Your task to perform on an android device: turn off notifications settings in the gmail app Image 0: 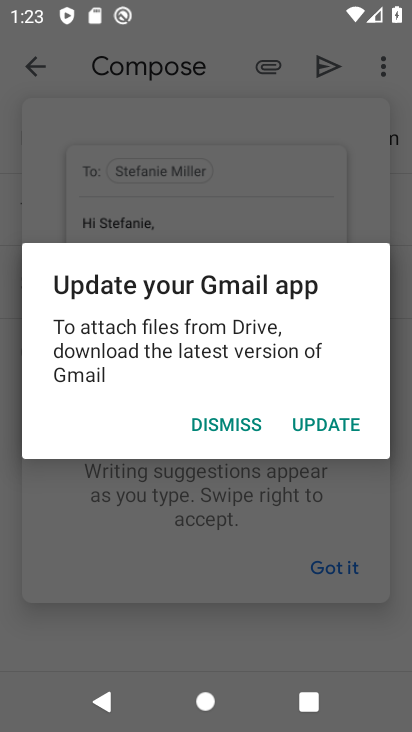
Step 0: press home button
Your task to perform on an android device: turn off notifications settings in the gmail app Image 1: 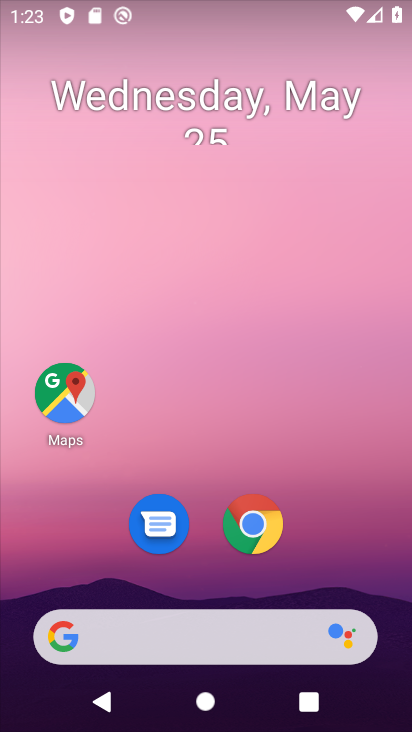
Step 1: drag from (318, 527) to (291, 88)
Your task to perform on an android device: turn off notifications settings in the gmail app Image 2: 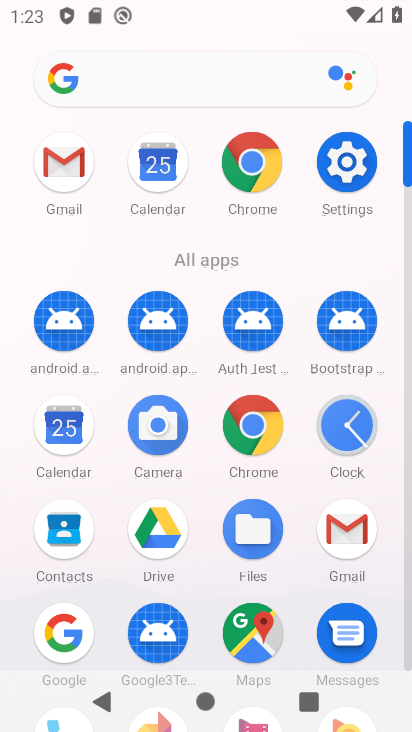
Step 2: click (334, 161)
Your task to perform on an android device: turn off notifications settings in the gmail app Image 3: 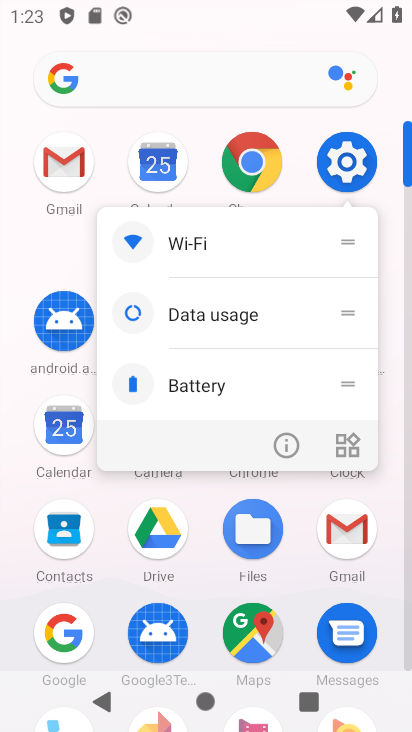
Step 3: click (349, 528)
Your task to perform on an android device: turn off notifications settings in the gmail app Image 4: 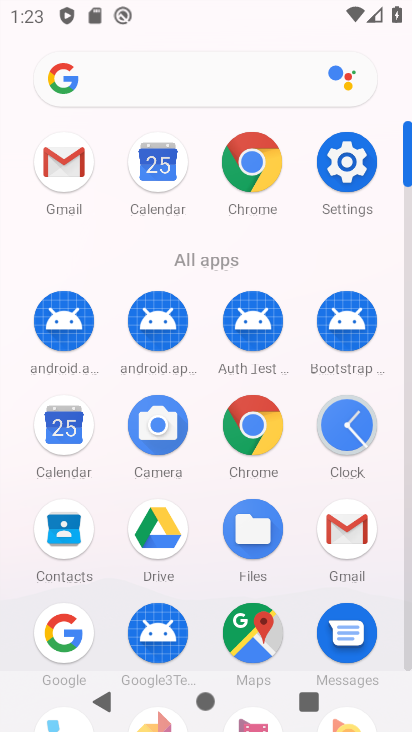
Step 4: click (349, 529)
Your task to perform on an android device: turn off notifications settings in the gmail app Image 5: 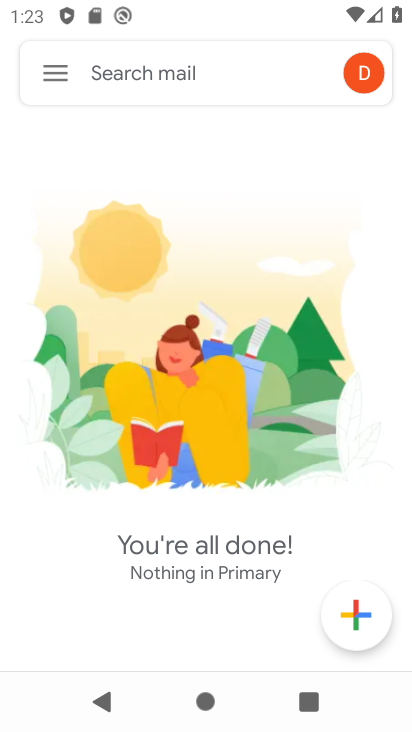
Step 5: click (53, 69)
Your task to perform on an android device: turn off notifications settings in the gmail app Image 6: 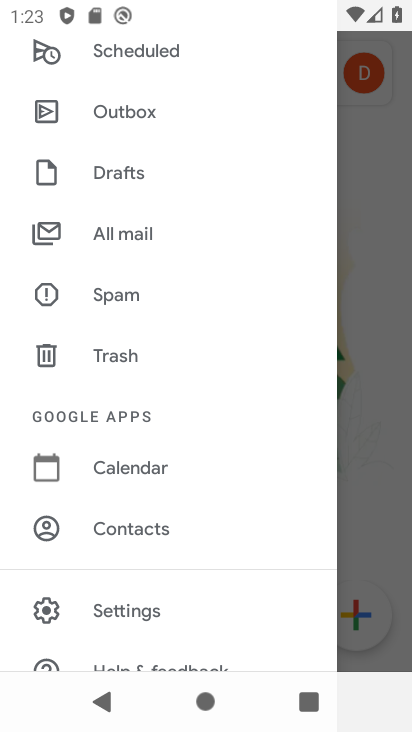
Step 6: click (149, 601)
Your task to perform on an android device: turn off notifications settings in the gmail app Image 7: 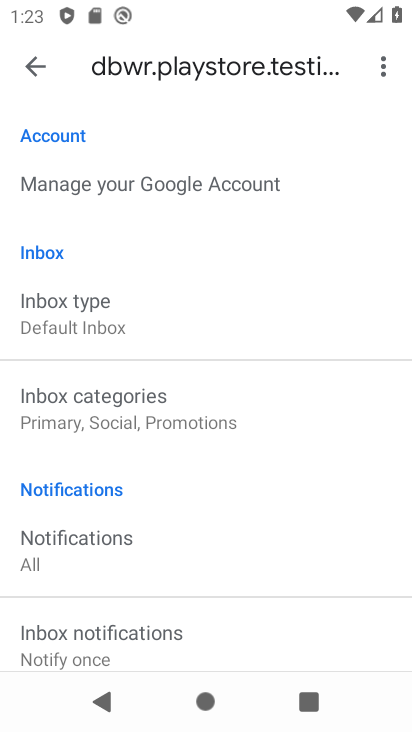
Step 7: drag from (200, 521) to (233, 121)
Your task to perform on an android device: turn off notifications settings in the gmail app Image 8: 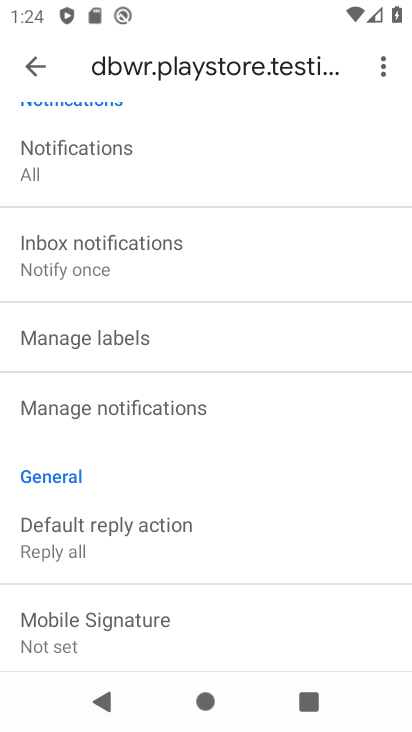
Step 8: click (241, 402)
Your task to perform on an android device: turn off notifications settings in the gmail app Image 9: 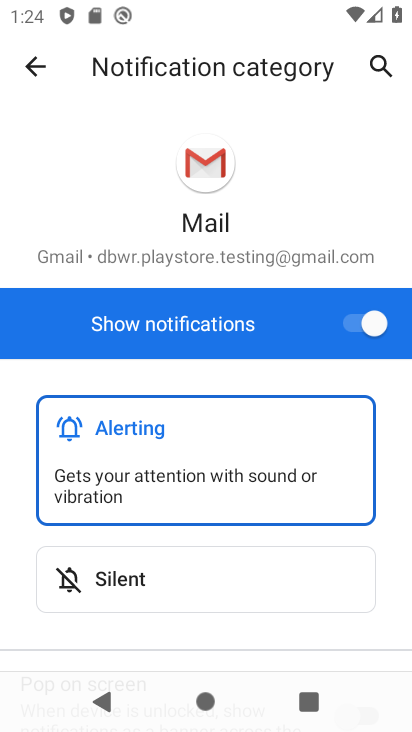
Step 9: click (357, 313)
Your task to perform on an android device: turn off notifications settings in the gmail app Image 10: 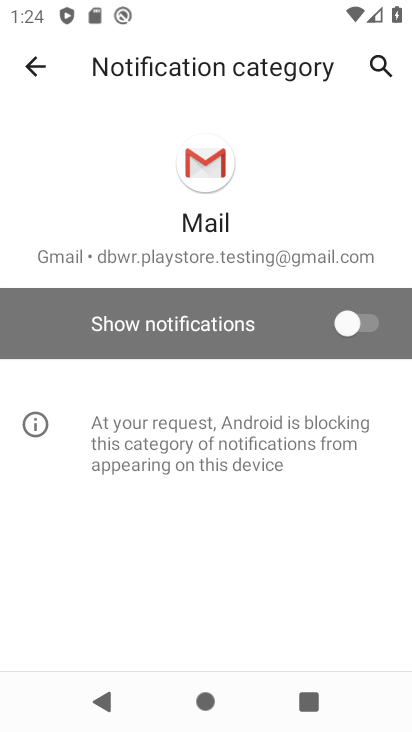
Step 10: task complete